Your task to perform on an android device: Go to Google maps Image 0: 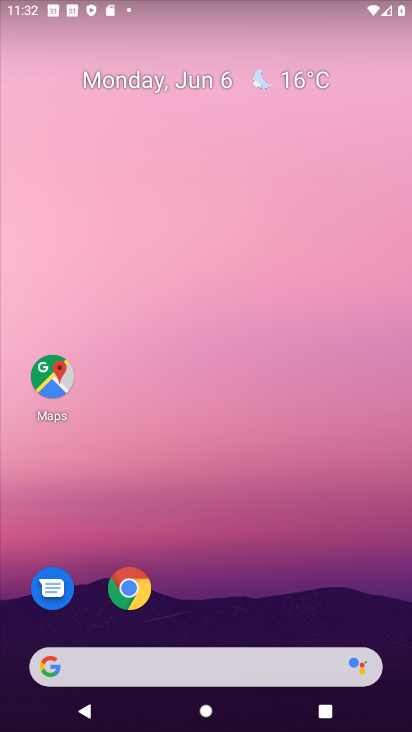
Step 0: drag from (398, 659) to (325, 64)
Your task to perform on an android device: Go to Google maps Image 1: 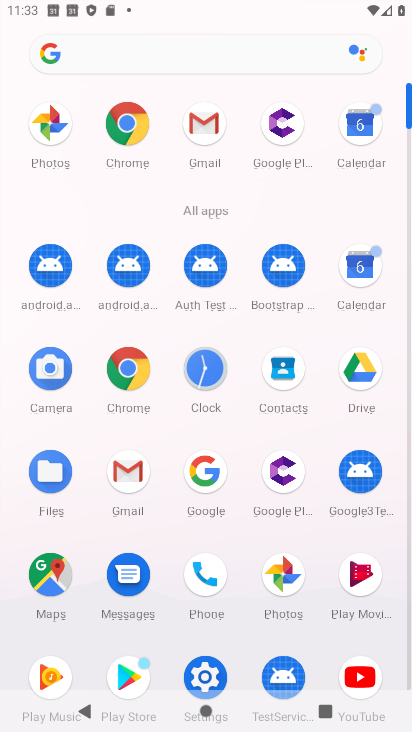
Step 1: click (49, 563)
Your task to perform on an android device: Go to Google maps Image 2: 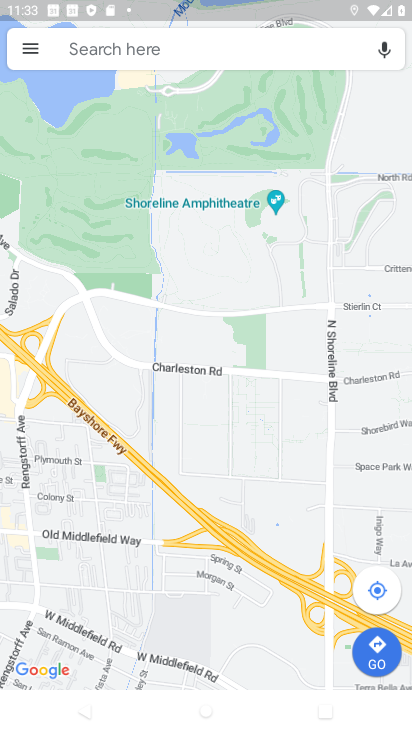
Step 2: task complete